Your task to perform on an android device: Open Android settings Image 0: 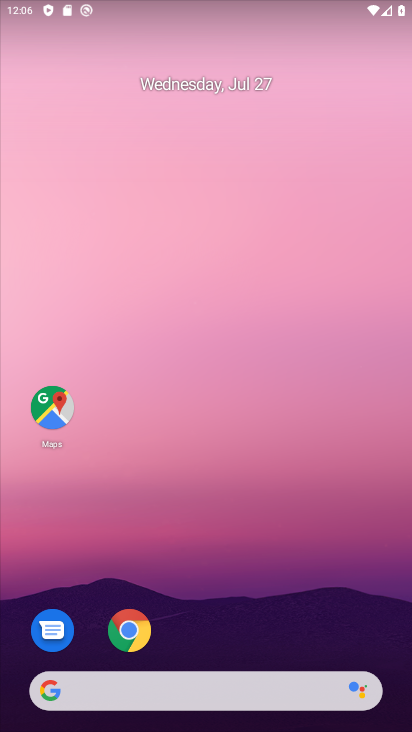
Step 0: drag from (218, 648) to (255, 0)
Your task to perform on an android device: Open Android settings Image 1: 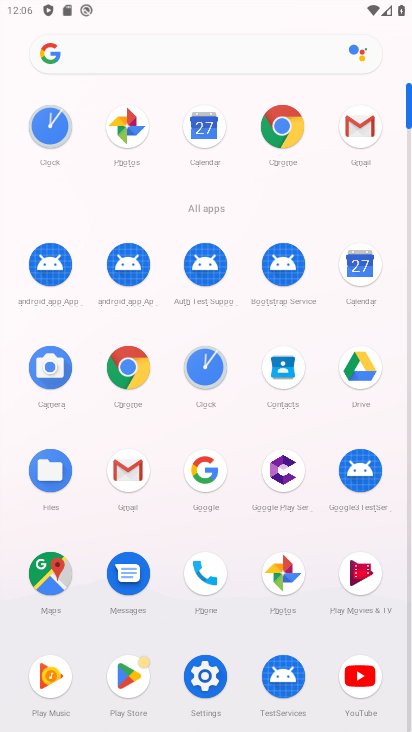
Step 1: click (207, 682)
Your task to perform on an android device: Open Android settings Image 2: 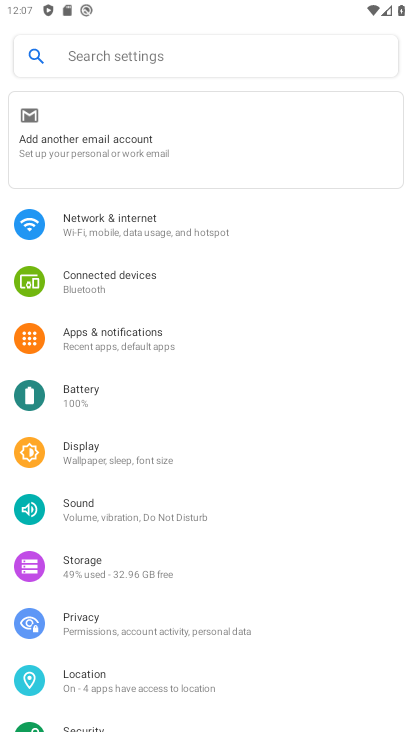
Step 2: drag from (174, 628) to (202, 170)
Your task to perform on an android device: Open Android settings Image 3: 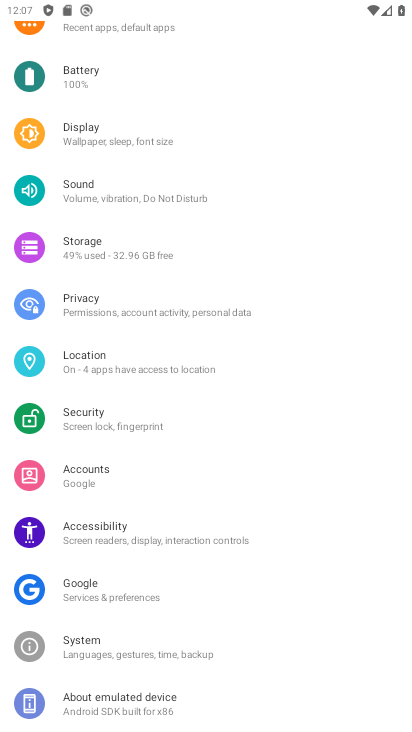
Step 3: drag from (117, 600) to (140, 291)
Your task to perform on an android device: Open Android settings Image 4: 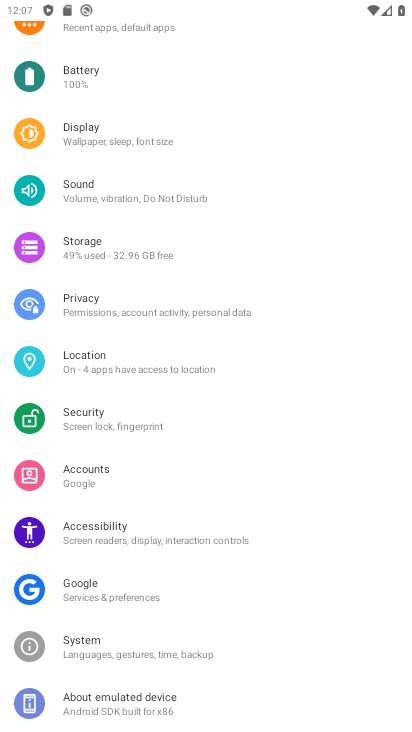
Step 4: click (122, 709)
Your task to perform on an android device: Open Android settings Image 5: 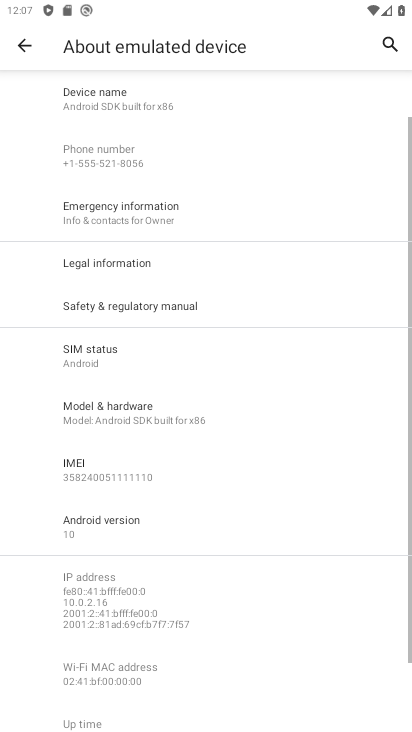
Step 5: click (109, 522)
Your task to perform on an android device: Open Android settings Image 6: 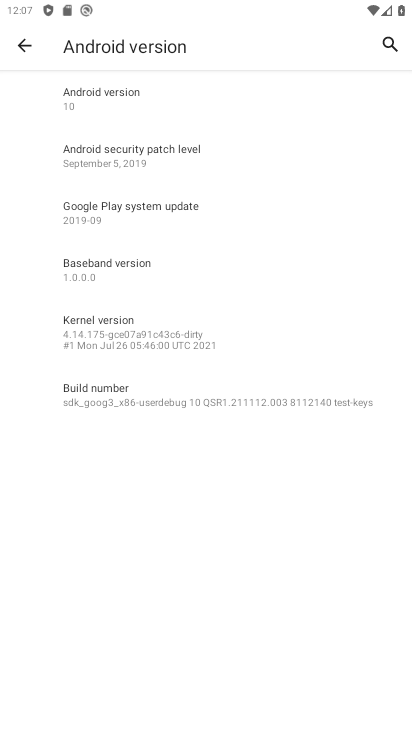
Step 6: task complete